Your task to perform on an android device: see tabs open on other devices in the chrome app Image 0: 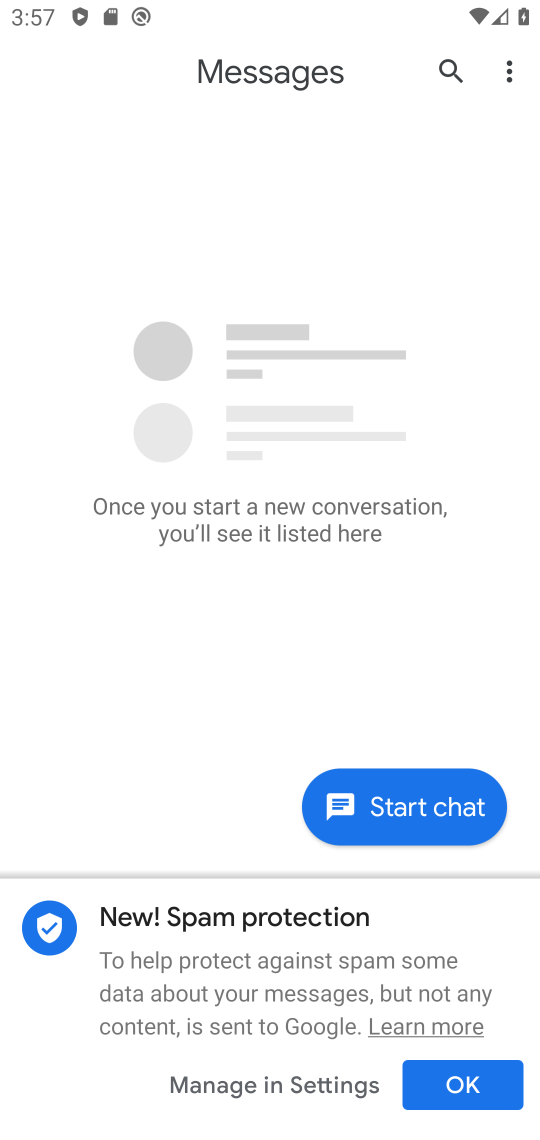
Step 0: press home button
Your task to perform on an android device: see tabs open on other devices in the chrome app Image 1: 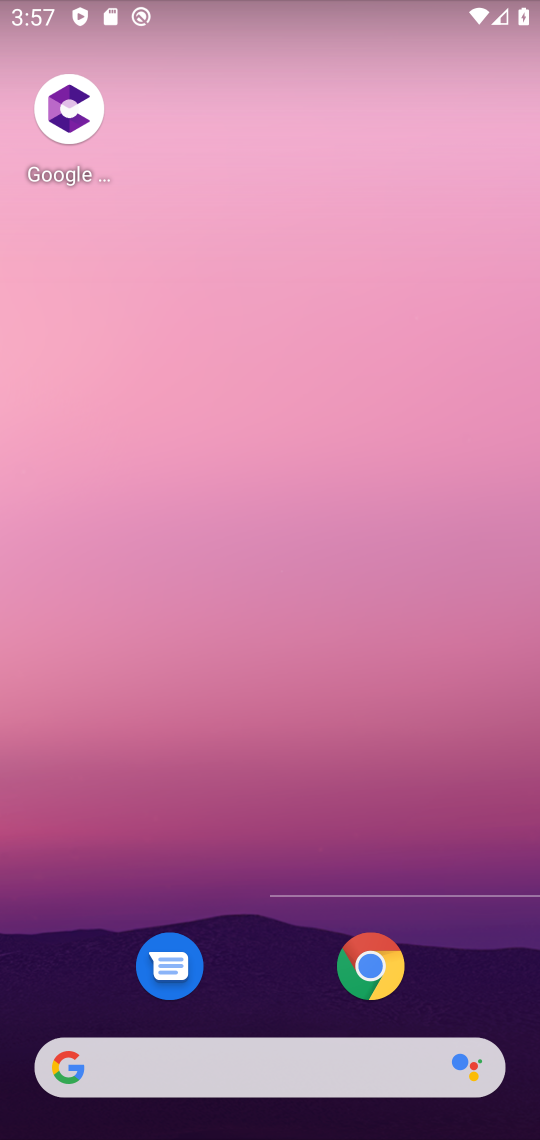
Step 1: drag from (273, 957) to (259, 37)
Your task to perform on an android device: see tabs open on other devices in the chrome app Image 2: 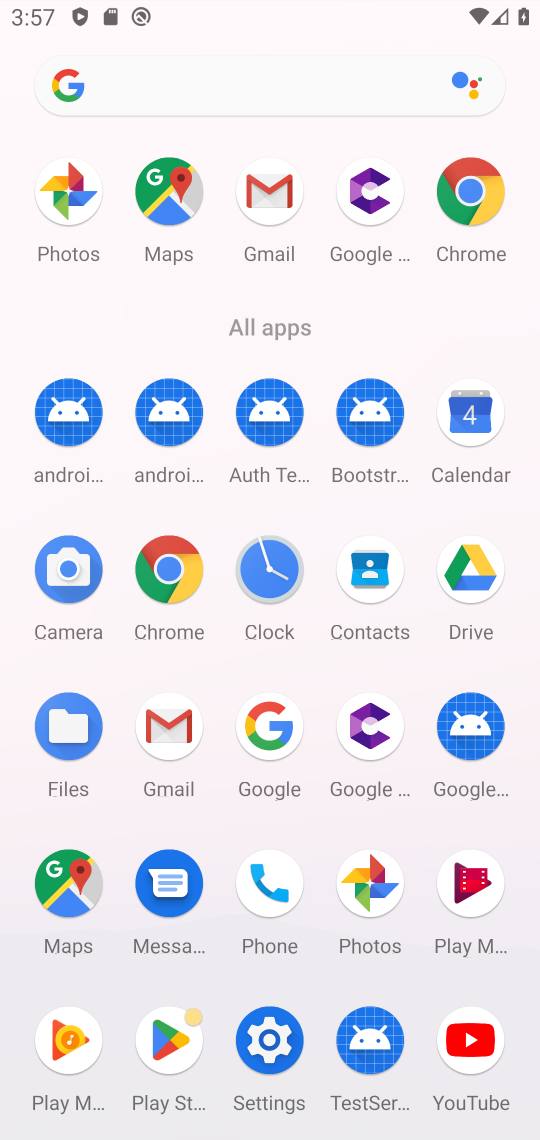
Step 2: click (469, 196)
Your task to perform on an android device: see tabs open on other devices in the chrome app Image 3: 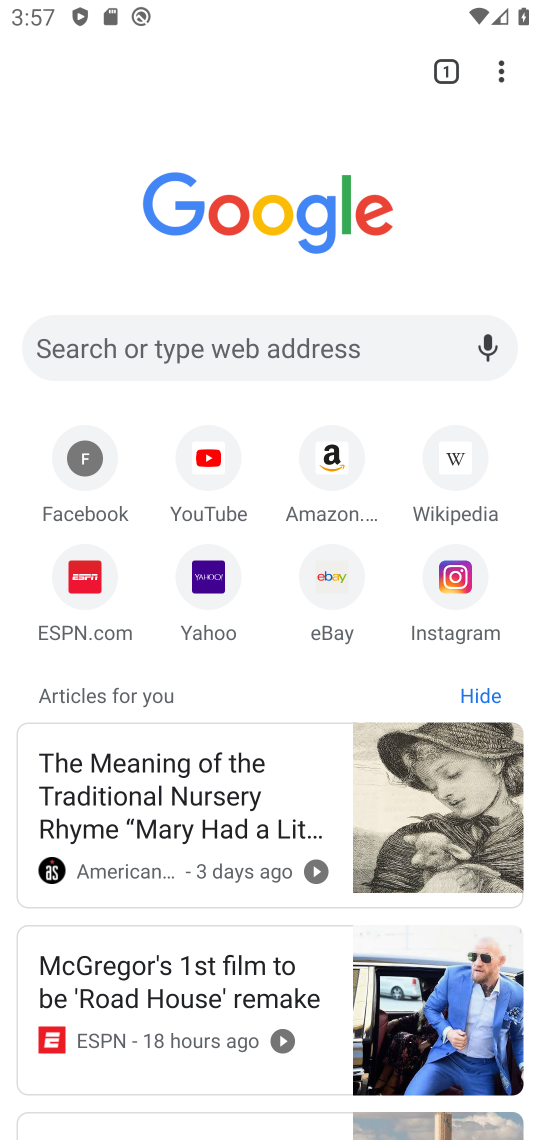
Step 3: drag from (490, 67) to (283, 342)
Your task to perform on an android device: see tabs open on other devices in the chrome app Image 4: 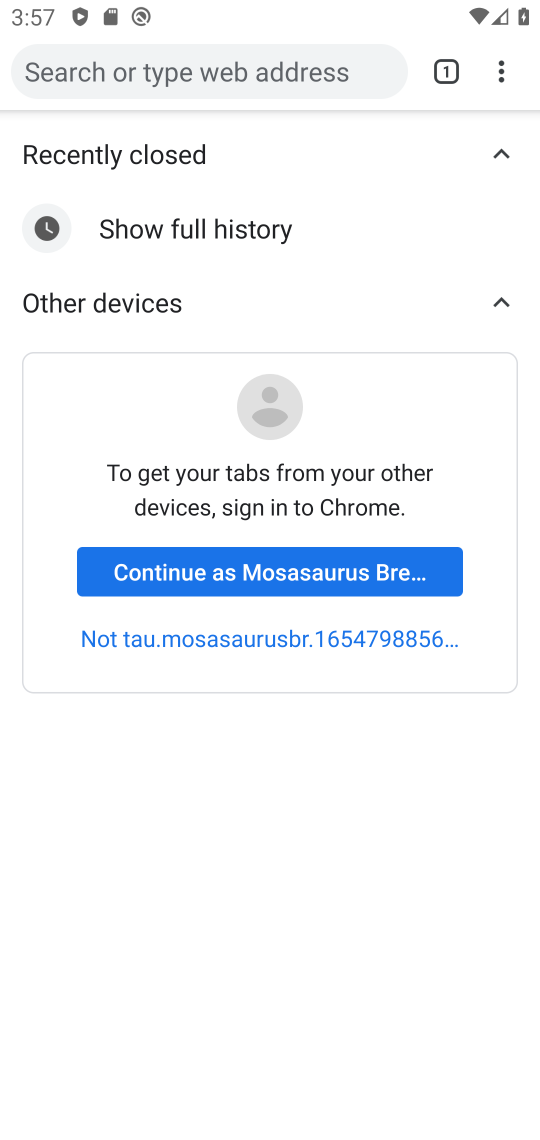
Step 4: click (205, 568)
Your task to perform on an android device: see tabs open on other devices in the chrome app Image 5: 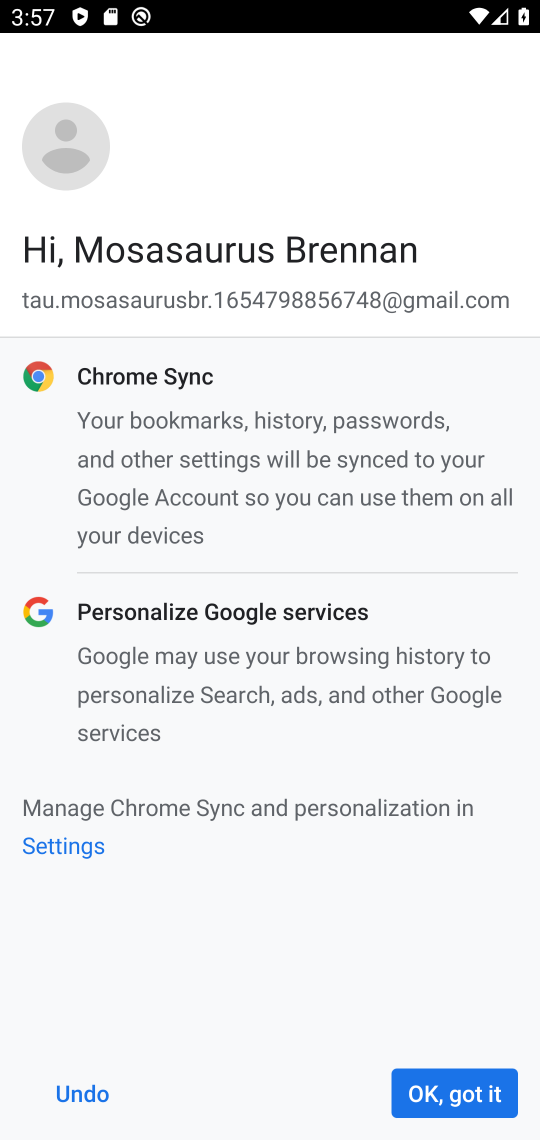
Step 5: click (417, 1084)
Your task to perform on an android device: see tabs open on other devices in the chrome app Image 6: 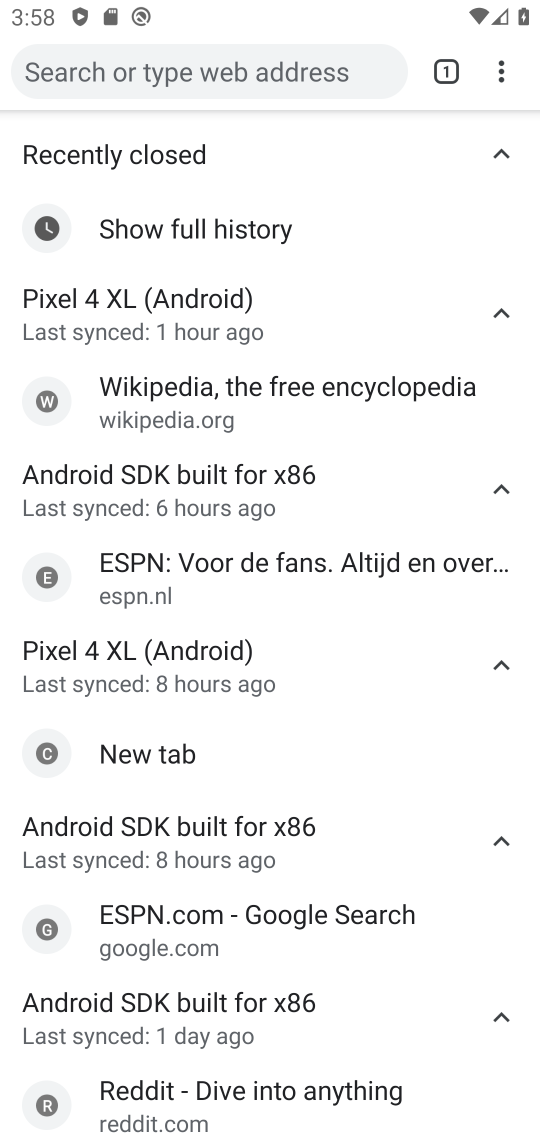
Step 6: task complete